Your task to perform on an android device: Open Reddit.com Image 0: 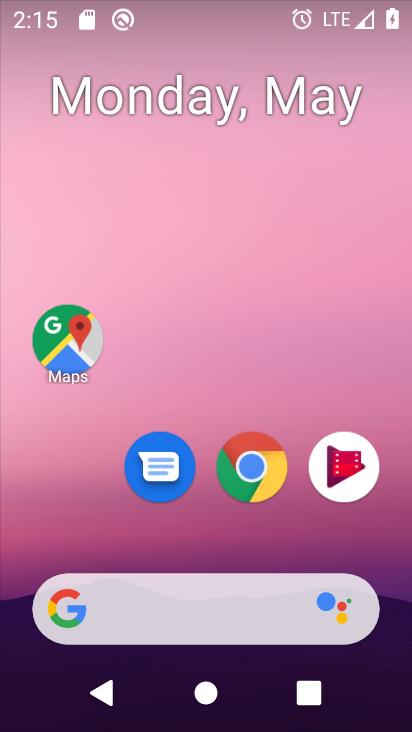
Step 0: click (47, 330)
Your task to perform on an android device: Open Reddit.com Image 1: 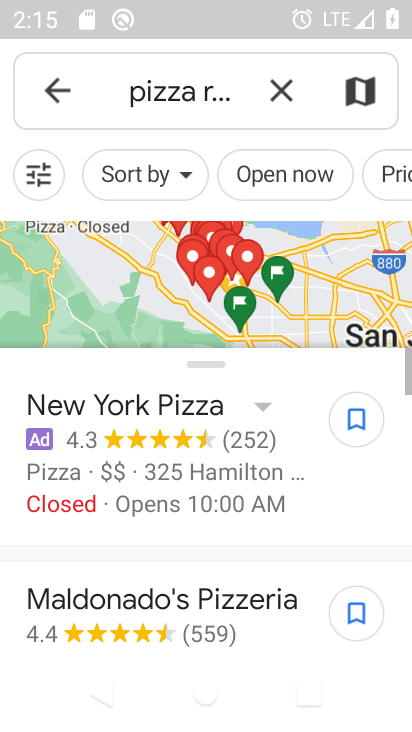
Step 1: click (285, 86)
Your task to perform on an android device: Open Reddit.com Image 2: 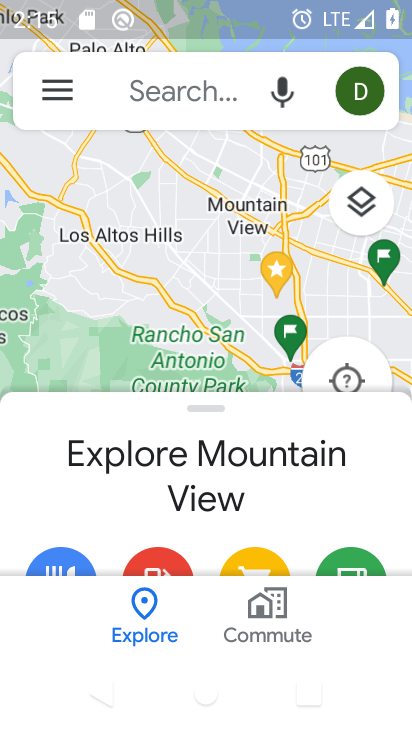
Step 2: click (47, 85)
Your task to perform on an android device: Open Reddit.com Image 3: 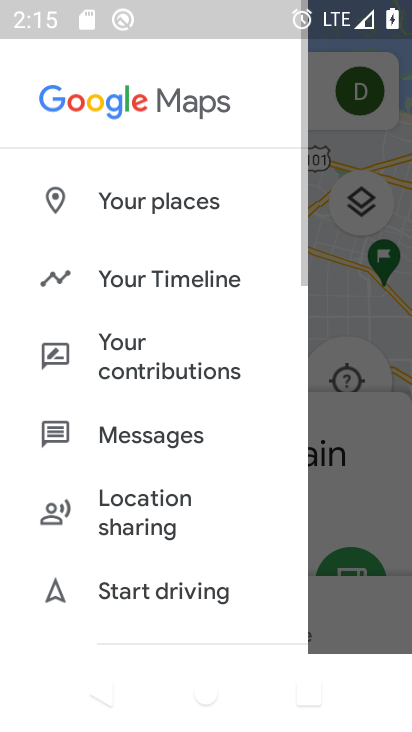
Step 3: click (168, 270)
Your task to perform on an android device: Open Reddit.com Image 4: 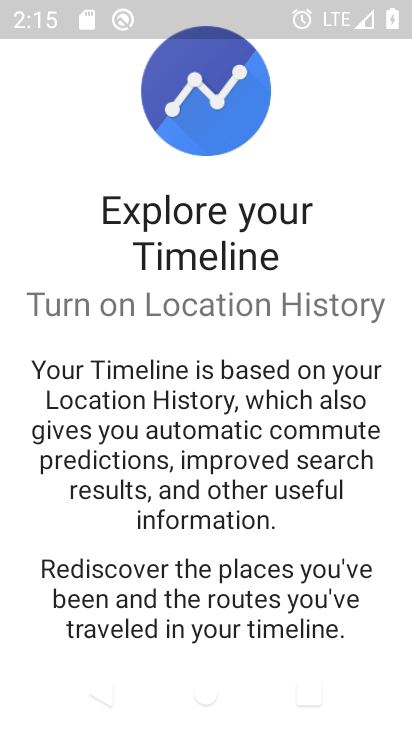
Step 4: drag from (235, 588) to (292, 227)
Your task to perform on an android device: Open Reddit.com Image 5: 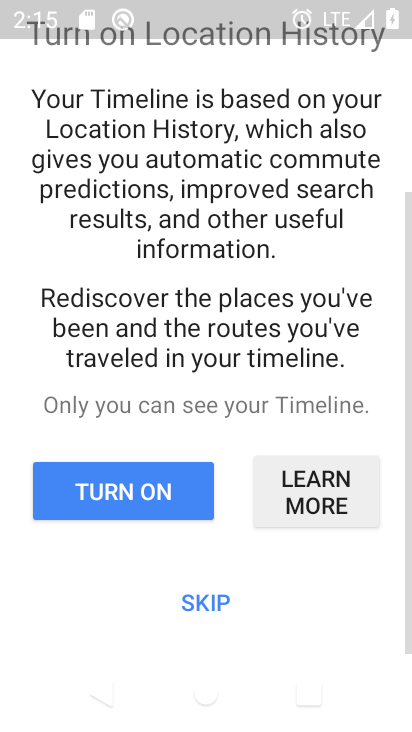
Step 5: click (226, 592)
Your task to perform on an android device: Open Reddit.com Image 6: 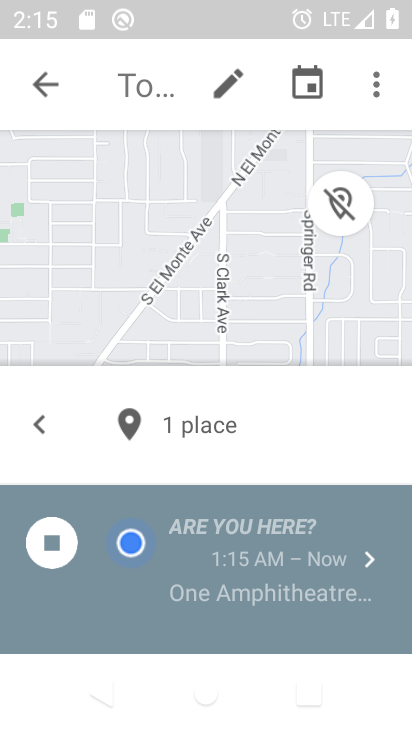
Step 6: press home button
Your task to perform on an android device: Open Reddit.com Image 7: 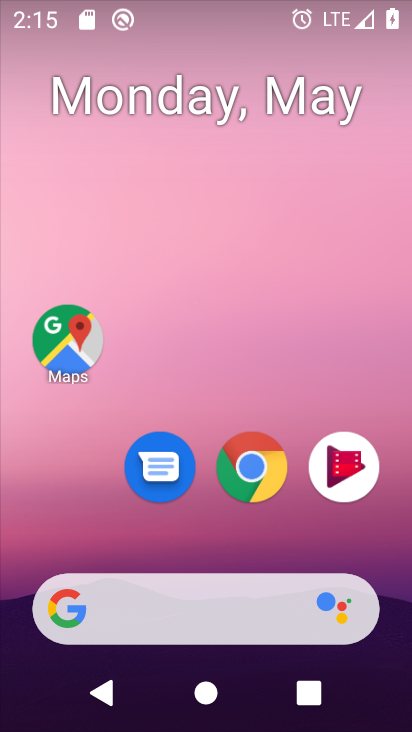
Step 7: click (242, 467)
Your task to perform on an android device: Open Reddit.com Image 8: 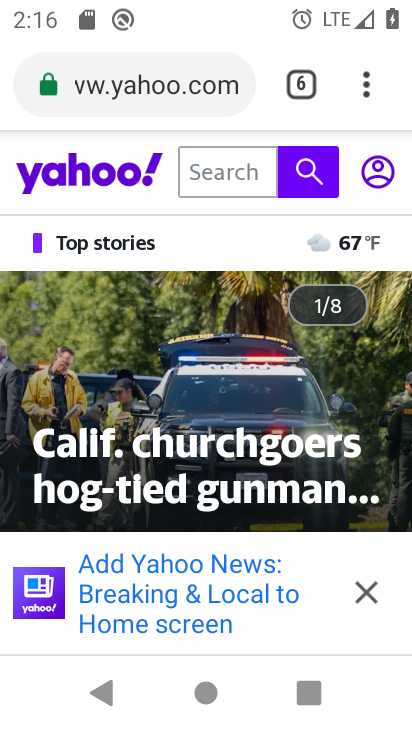
Step 8: click (352, 79)
Your task to perform on an android device: Open Reddit.com Image 9: 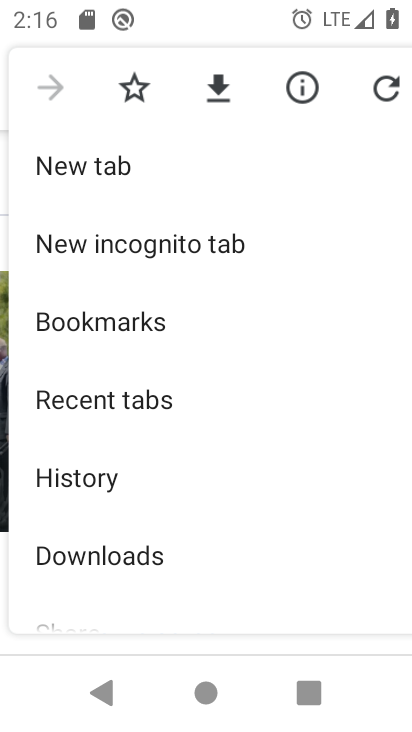
Step 9: click (71, 160)
Your task to perform on an android device: Open Reddit.com Image 10: 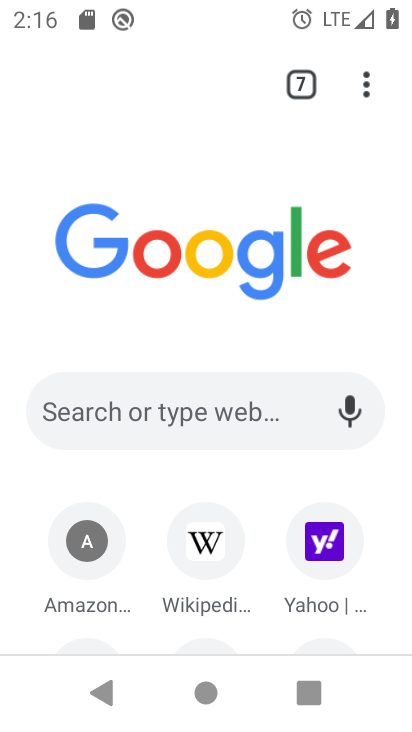
Step 10: click (210, 406)
Your task to perform on an android device: Open Reddit.com Image 11: 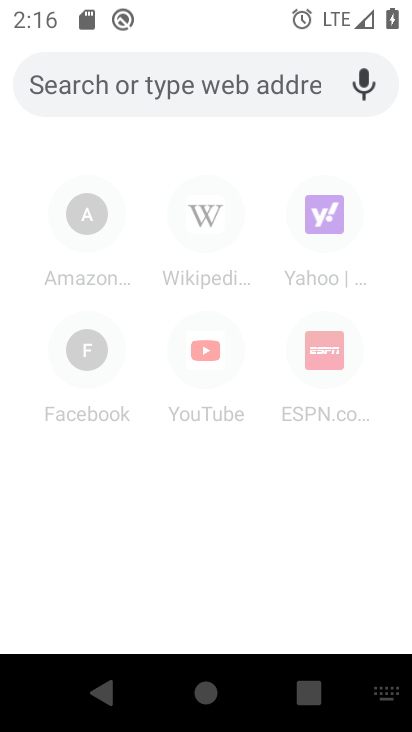
Step 11: type "Reddit.com]"
Your task to perform on an android device: Open Reddit.com Image 12: 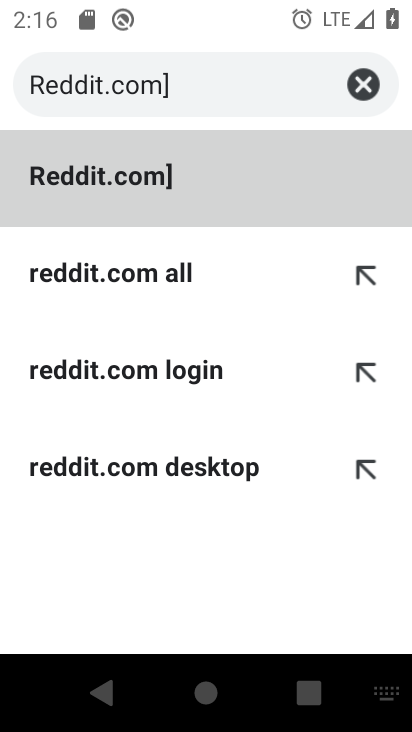
Step 12: click (241, 181)
Your task to perform on an android device: Open Reddit.com Image 13: 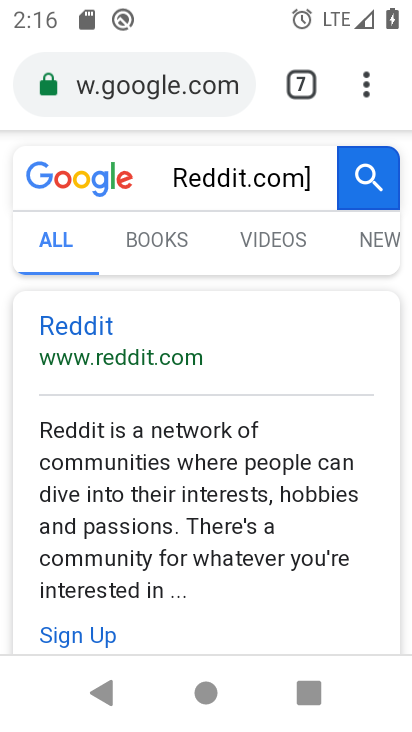
Step 13: click (285, 180)
Your task to perform on an android device: Open Reddit.com Image 14: 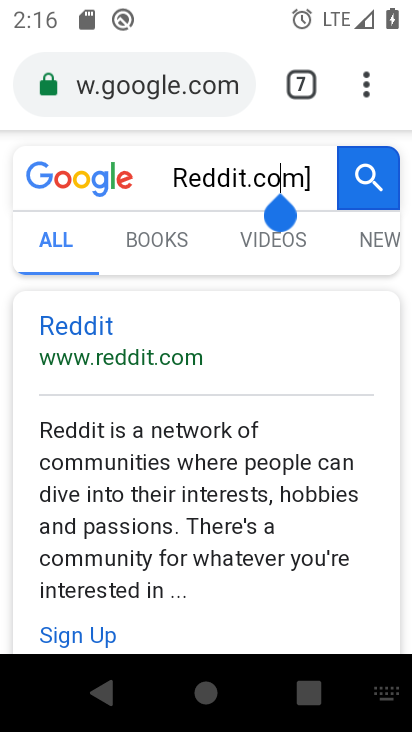
Step 14: click (65, 339)
Your task to perform on an android device: Open Reddit.com Image 15: 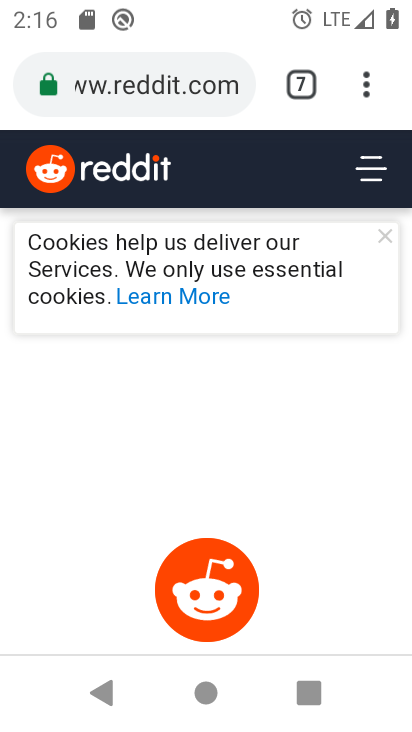
Step 15: task complete